Your task to perform on an android device: remove spam from my inbox in the gmail app Image 0: 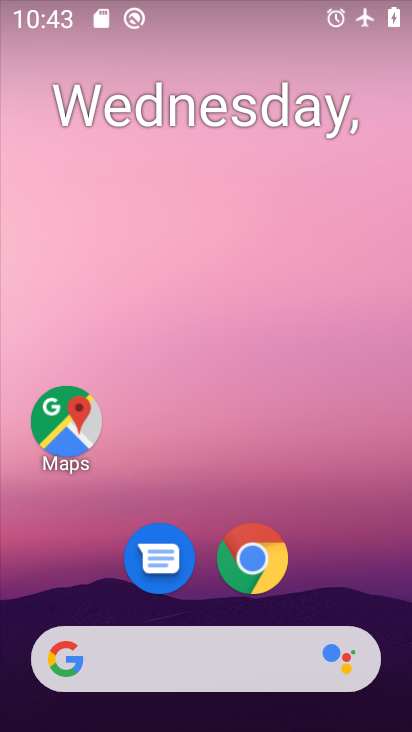
Step 0: drag from (372, 594) to (373, 149)
Your task to perform on an android device: remove spam from my inbox in the gmail app Image 1: 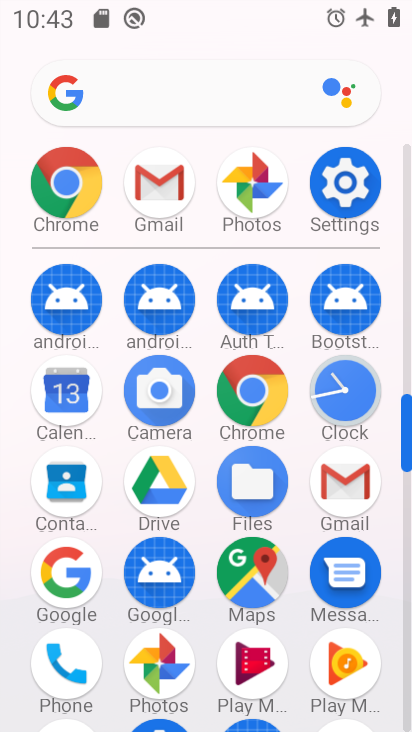
Step 1: click (343, 490)
Your task to perform on an android device: remove spam from my inbox in the gmail app Image 2: 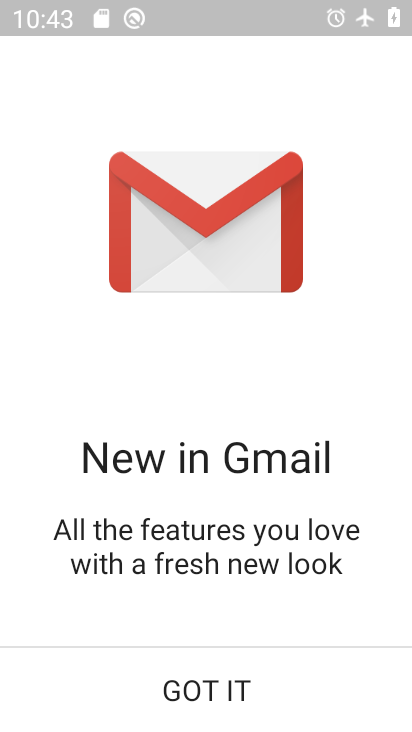
Step 2: click (233, 680)
Your task to perform on an android device: remove spam from my inbox in the gmail app Image 3: 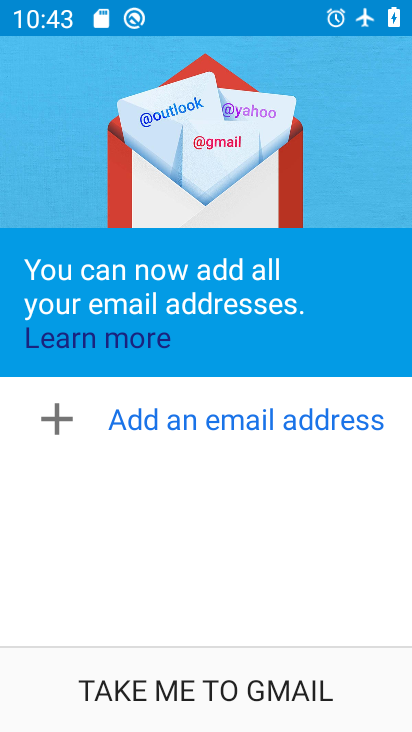
Step 3: click (233, 680)
Your task to perform on an android device: remove spam from my inbox in the gmail app Image 4: 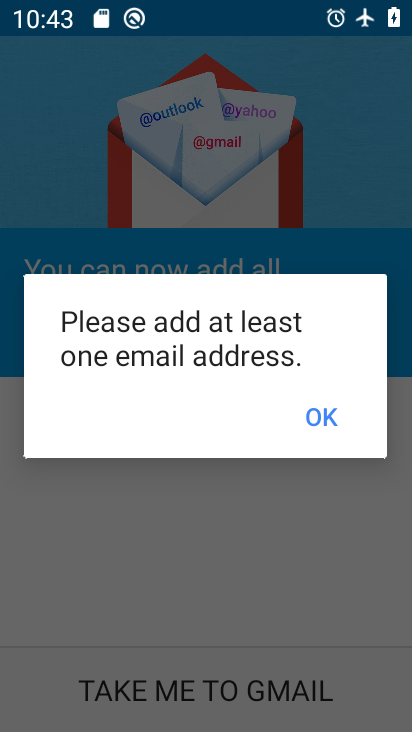
Step 4: task complete